Your task to perform on an android device: Open the stopwatch Image 0: 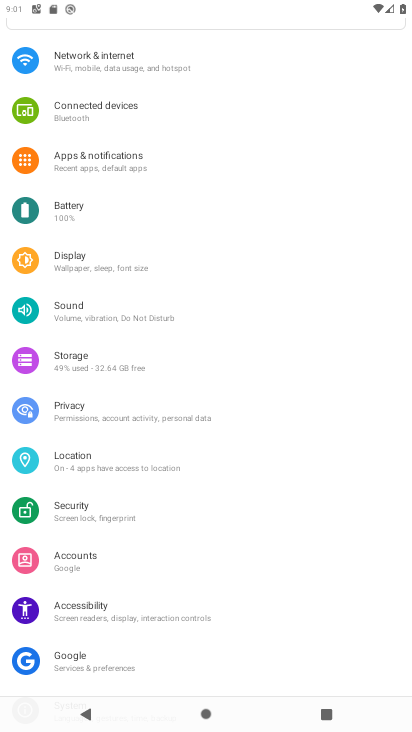
Step 0: press home button
Your task to perform on an android device: Open the stopwatch Image 1: 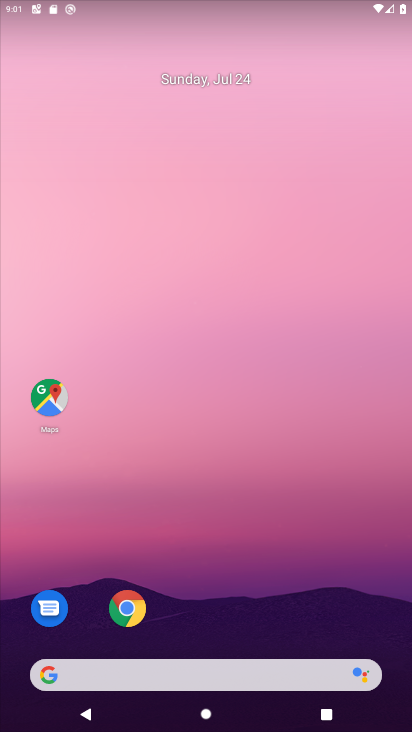
Step 1: drag from (332, 586) to (396, 13)
Your task to perform on an android device: Open the stopwatch Image 2: 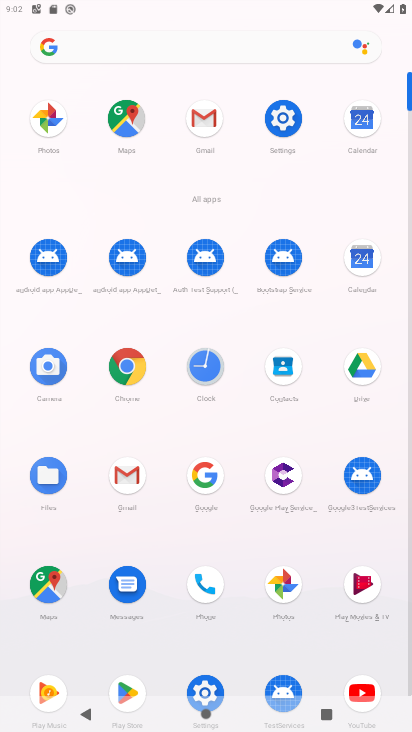
Step 2: click (200, 359)
Your task to perform on an android device: Open the stopwatch Image 3: 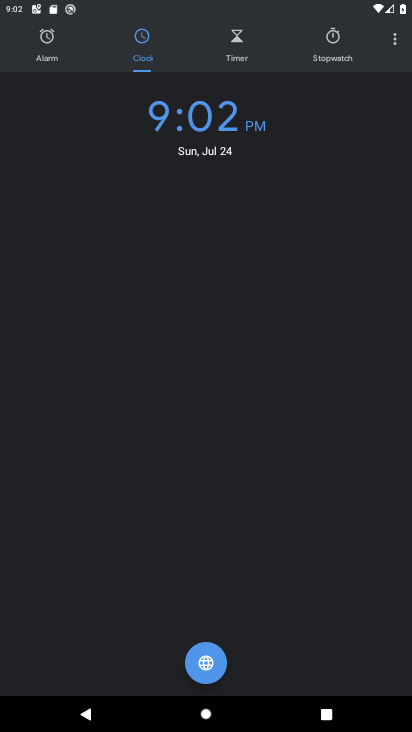
Step 3: click (323, 34)
Your task to perform on an android device: Open the stopwatch Image 4: 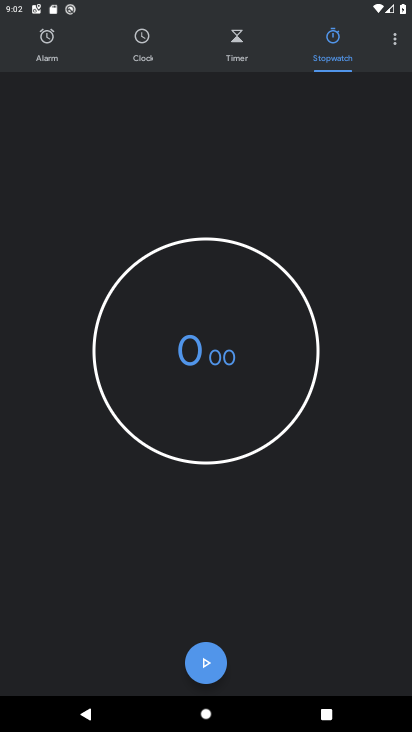
Step 4: task complete